Your task to perform on an android device: Go to location settings Image 0: 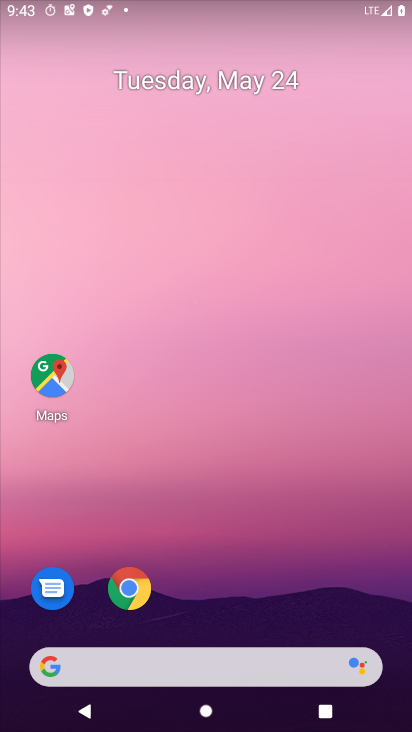
Step 0: drag from (217, 487) to (242, 51)
Your task to perform on an android device: Go to location settings Image 1: 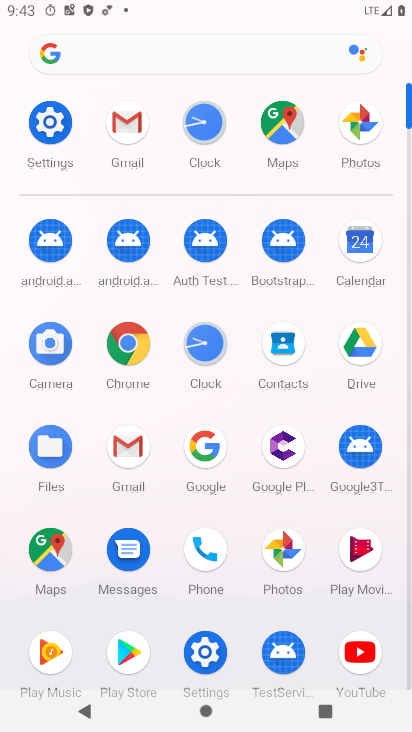
Step 1: click (44, 125)
Your task to perform on an android device: Go to location settings Image 2: 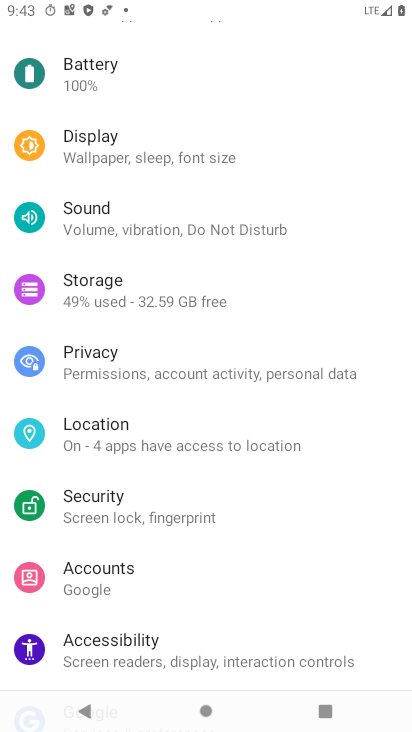
Step 2: click (126, 438)
Your task to perform on an android device: Go to location settings Image 3: 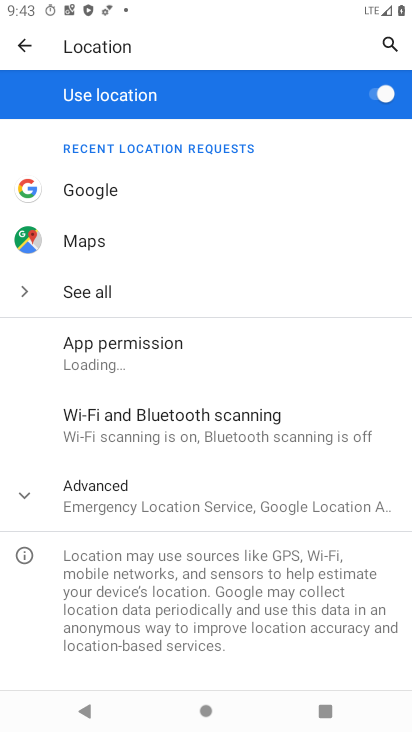
Step 3: task complete